Your task to perform on an android device: turn off picture-in-picture Image 0: 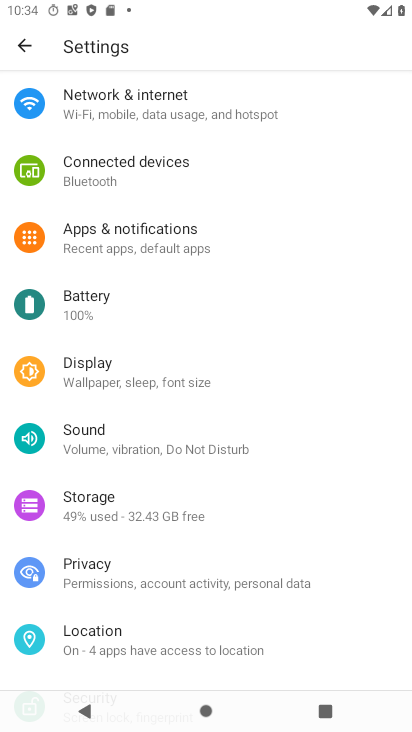
Step 0: press home button
Your task to perform on an android device: turn off picture-in-picture Image 1: 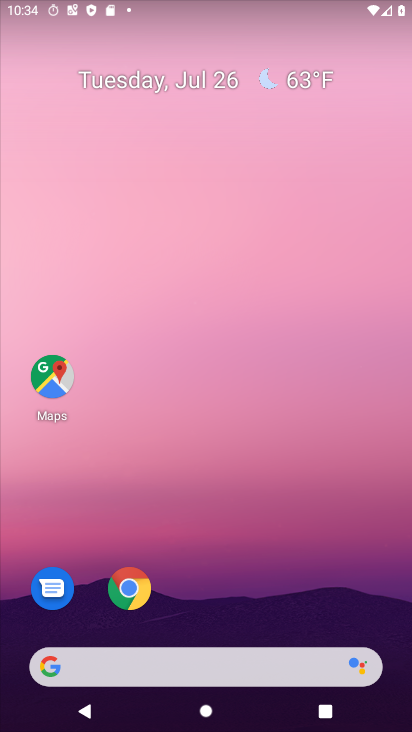
Step 1: click (129, 606)
Your task to perform on an android device: turn off picture-in-picture Image 2: 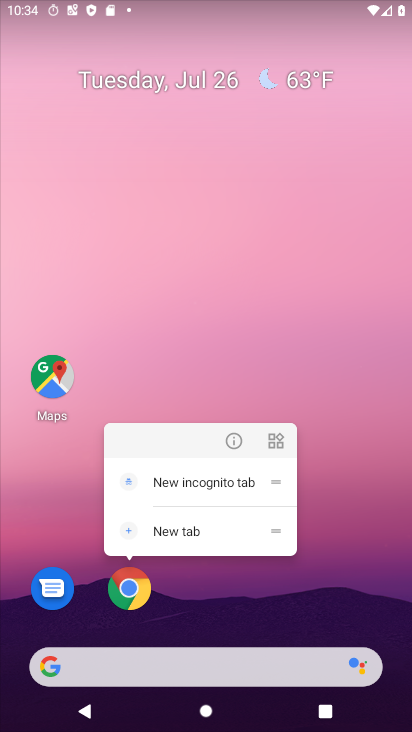
Step 2: click (231, 440)
Your task to perform on an android device: turn off picture-in-picture Image 3: 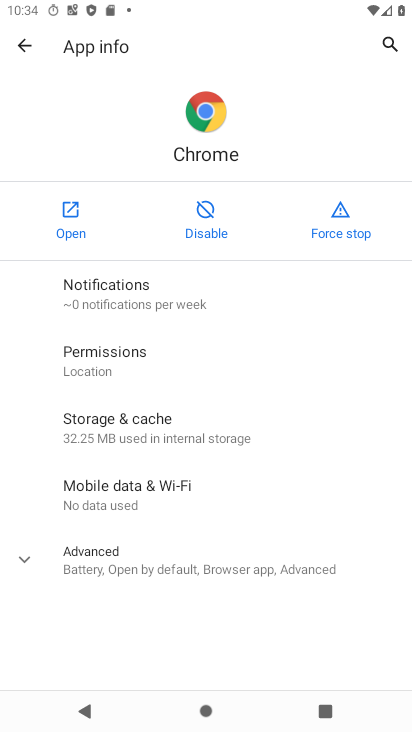
Step 3: click (154, 599)
Your task to perform on an android device: turn off picture-in-picture Image 4: 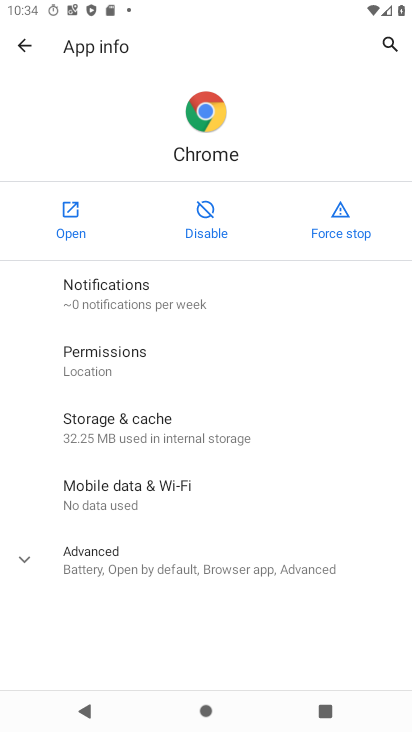
Step 4: click (124, 585)
Your task to perform on an android device: turn off picture-in-picture Image 5: 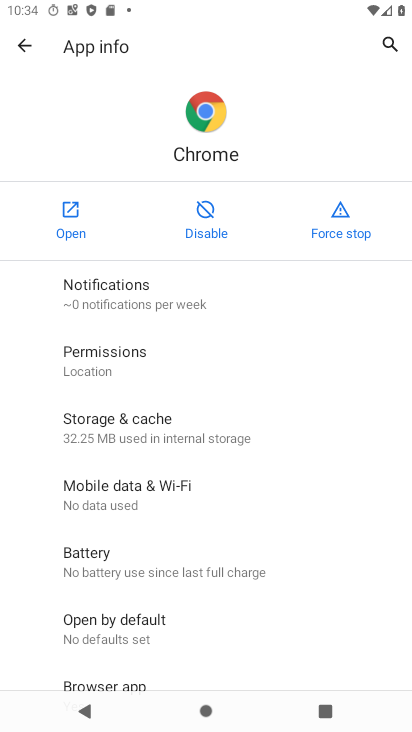
Step 5: drag from (124, 585) to (174, 227)
Your task to perform on an android device: turn off picture-in-picture Image 6: 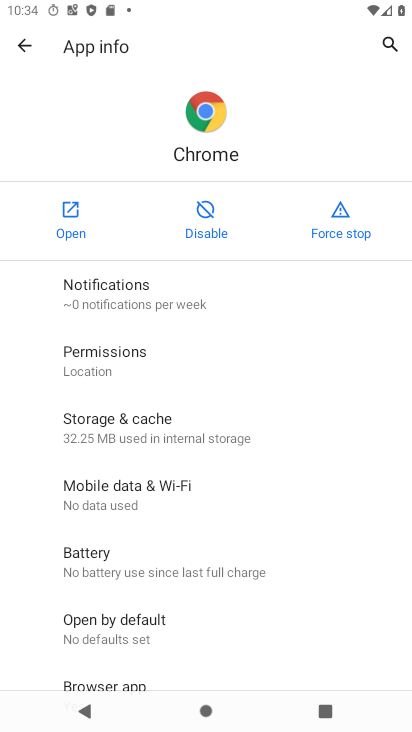
Step 6: drag from (123, 611) to (169, 180)
Your task to perform on an android device: turn off picture-in-picture Image 7: 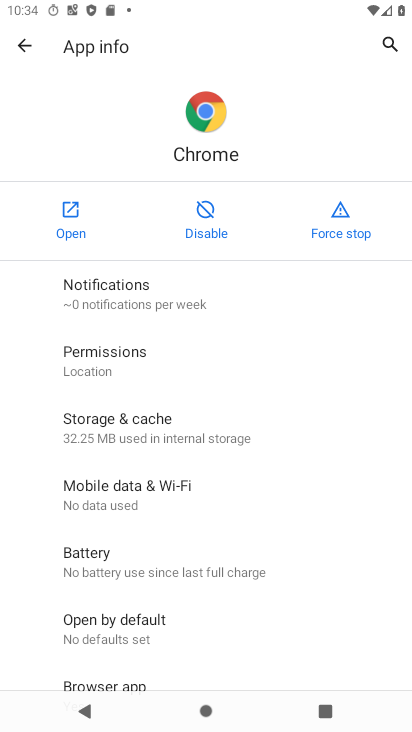
Step 7: drag from (274, 646) to (301, 398)
Your task to perform on an android device: turn off picture-in-picture Image 8: 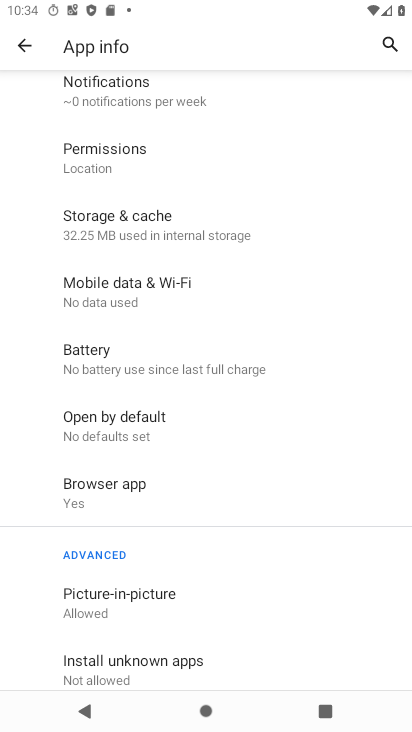
Step 8: click (78, 665)
Your task to perform on an android device: turn off picture-in-picture Image 9: 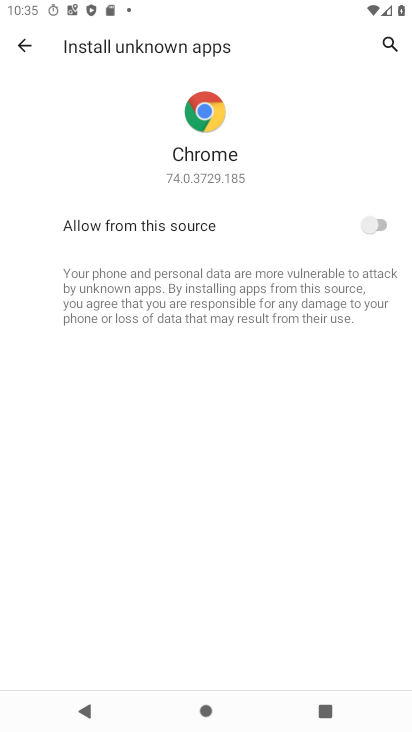
Step 9: task complete